Your task to perform on an android device: check data usage Image 0: 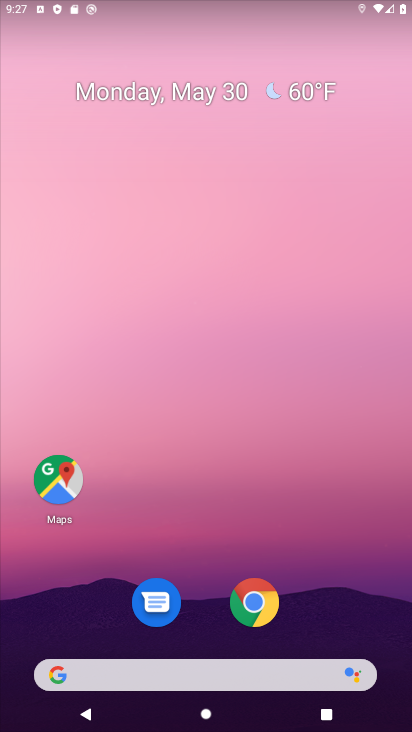
Step 0: click (208, 238)
Your task to perform on an android device: check data usage Image 1: 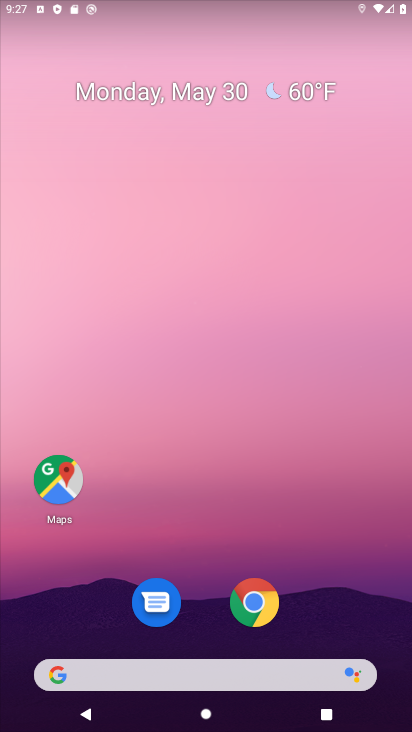
Step 1: drag from (201, 633) to (239, 230)
Your task to perform on an android device: check data usage Image 2: 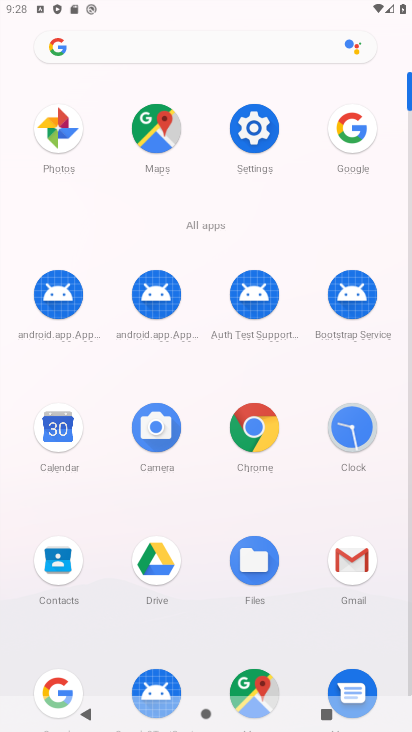
Step 2: click (257, 149)
Your task to perform on an android device: check data usage Image 3: 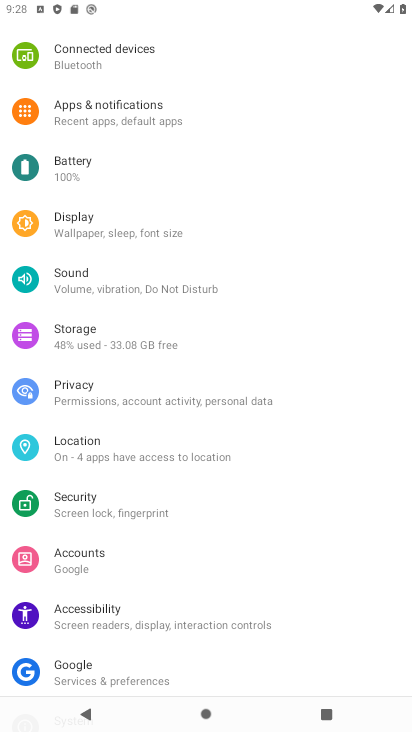
Step 3: drag from (179, 508) to (181, 249)
Your task to perform on an android device: check data usage Image 4: 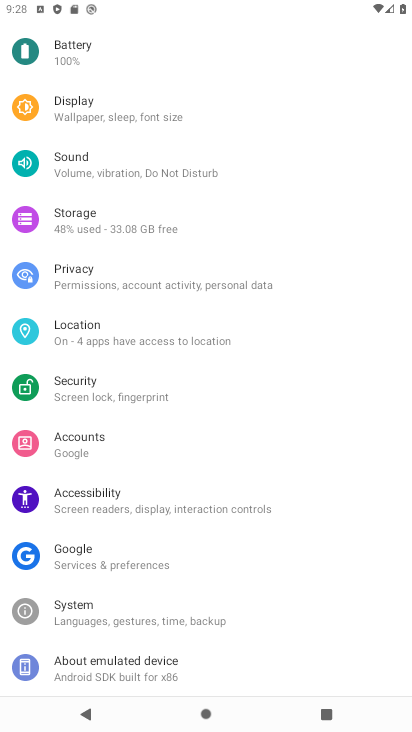
Step 4: drag from (154, 541) to (202, 457)
Your task to perform on an android device: check data usage Image 5: 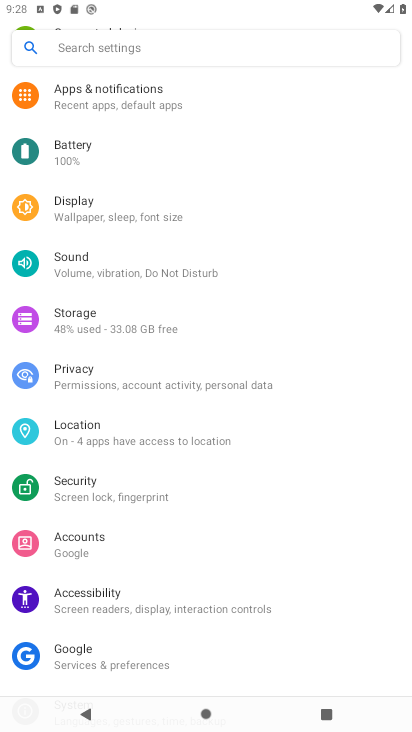
Step 5: drag from (200, 324) to (218, 477)
Your task to perform on an android device: check data usage Image 6: 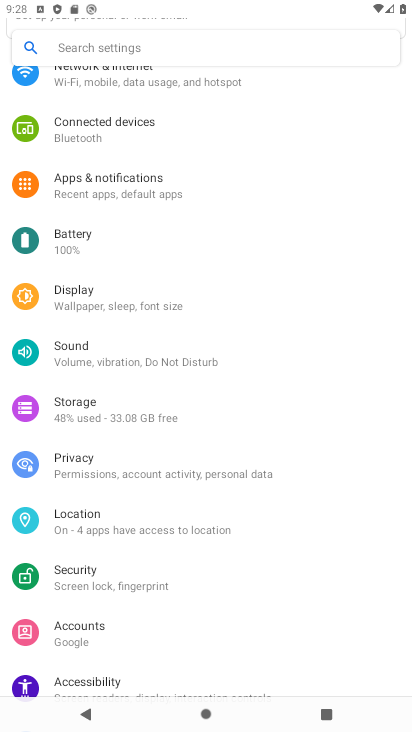
Step 6: drag from (175, 235) to (177, 417)
Your task to perform on an android device: check data usage Image 7: 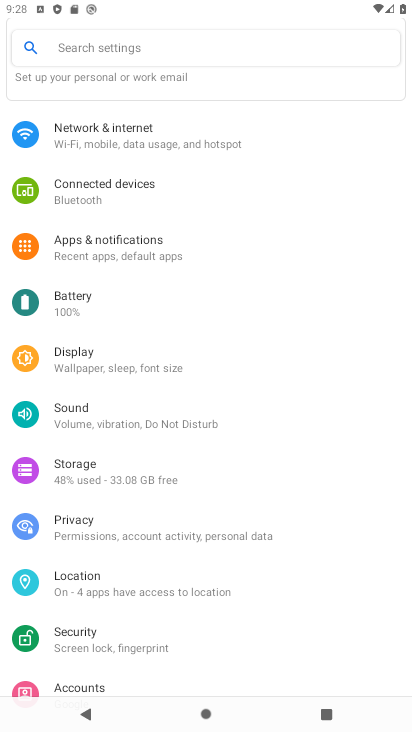
Step 7: drag from (166, 261) to (181, 471)
Your task to perform on an android device: check data usage Image 8: 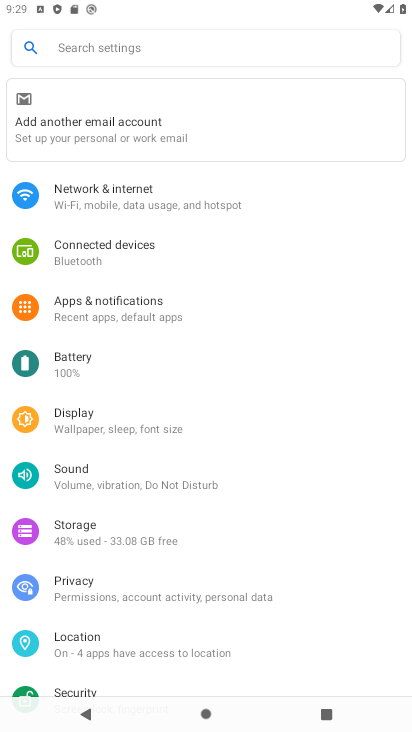
Step 8: click (138, 205)
Your task to perform on an android device: check data usage Image 9: 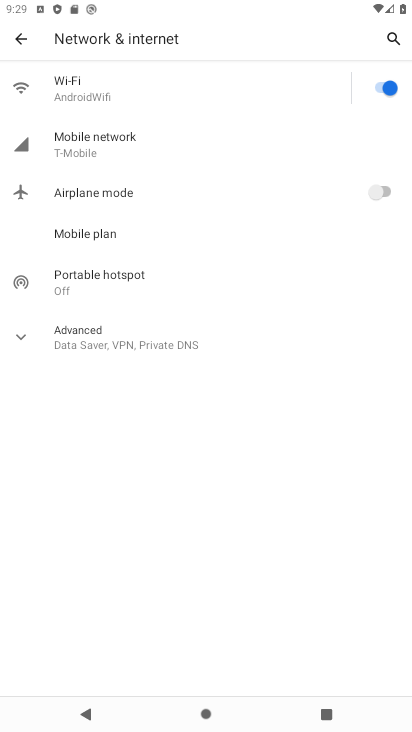
Step 9: click (125, 137)
Your task to perform on an android device: check data usage Image 10: 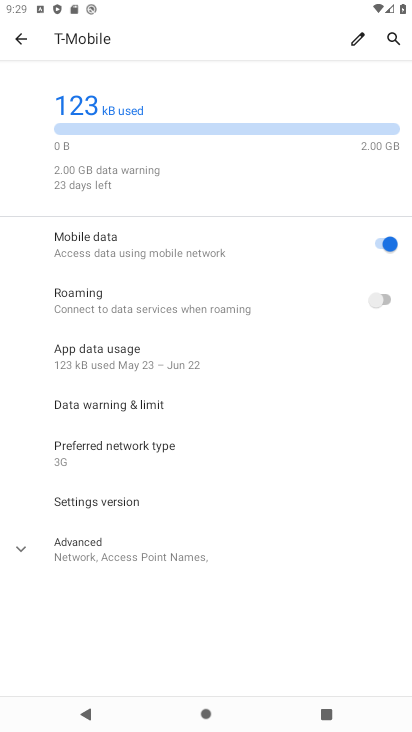
Step 10: click (171, 371)
Your task to perform on an android device: check data usage Image 11: 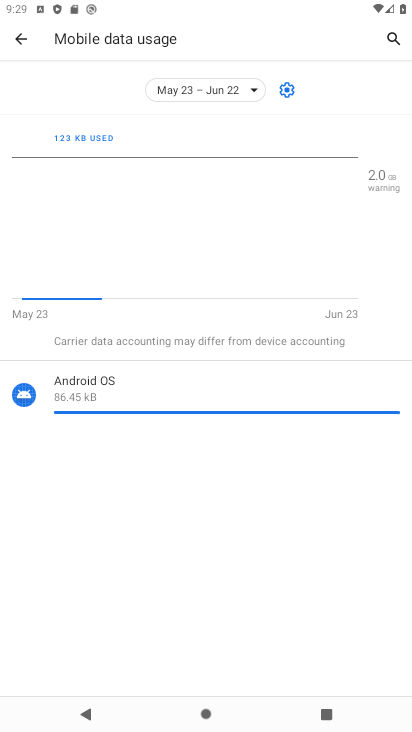
Step 11: task complete